Your task to perform on an android device: Open Chrome and go to the settings page Image 0: 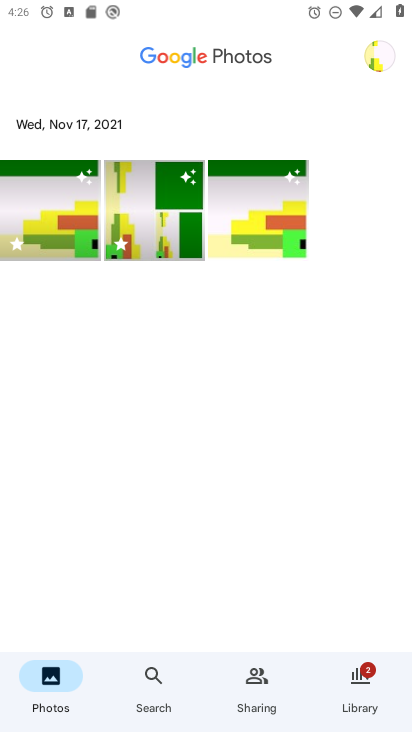
Step 0: press home button
Your task to perform on an android device: Open Chrome and go to the settings page Image 1: 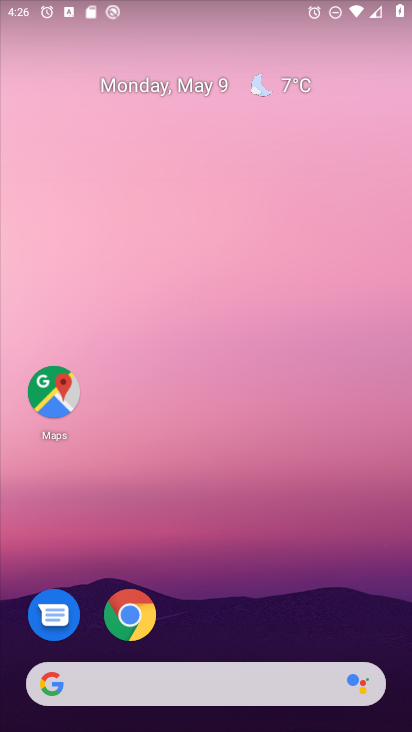
Step 1: click (131, 613)
Your task to perform on an android device: Open Chrome and go to the settings page Image 2: 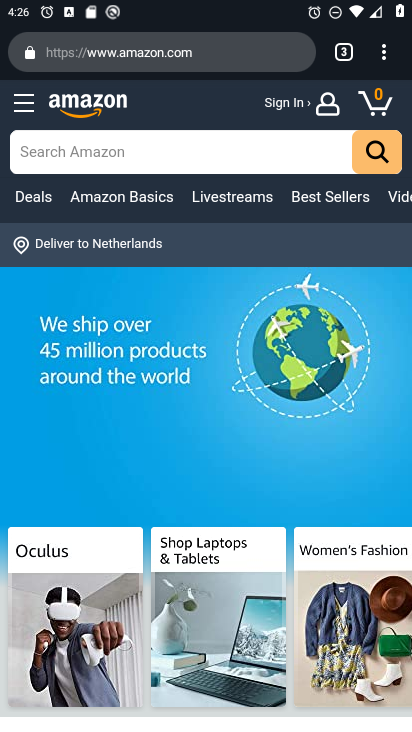
Step 2: click (382, 57)
Your task to perform on an android device: Open Chrome and go to the settings page Image 3: 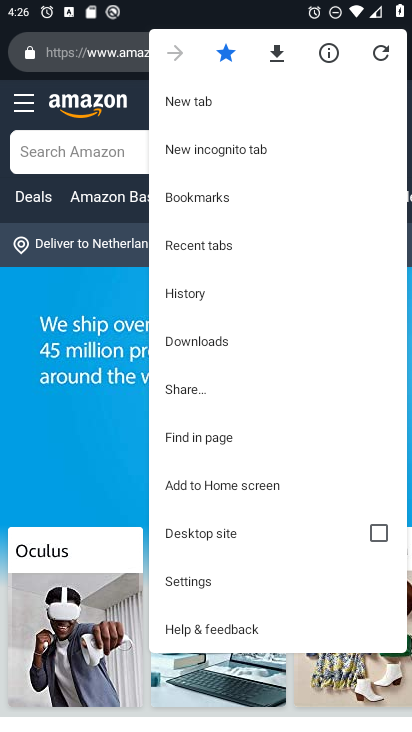
Step 3: click (190, 576)
Your task to perform on an android device: Open Chrome and go to the settings page Image 4: 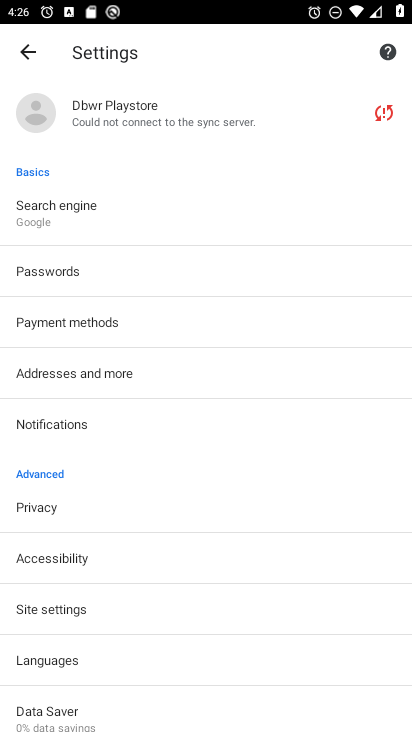
Step 4: task complete